Your task to perform on an android device: add a contact in the contacts app Image 0: 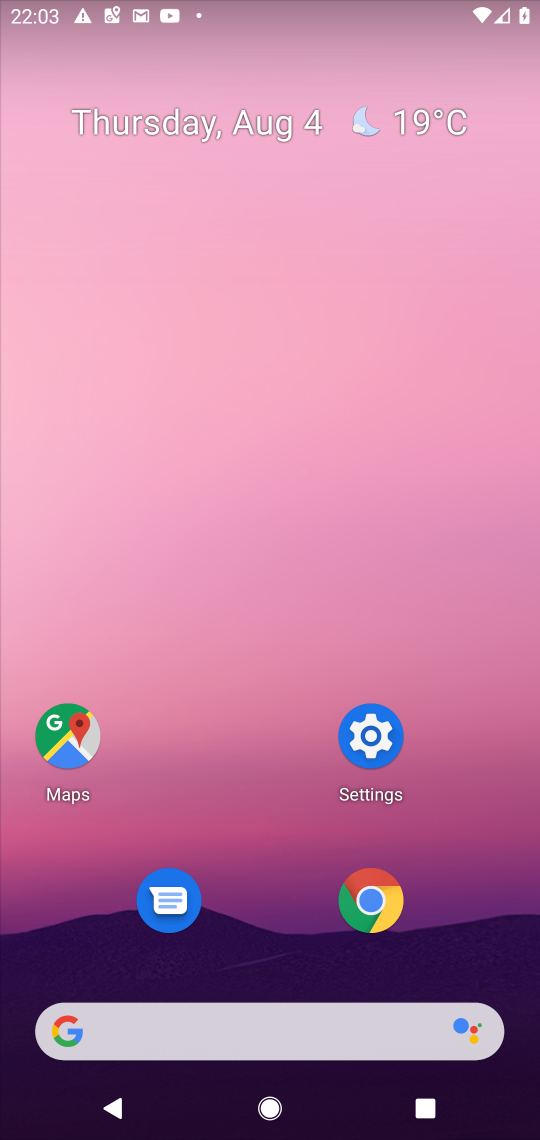
Step 0: drag from (266, 976) to (401, 21)
Your task to perform on an android device: add a contact in the contacts app Image 1: 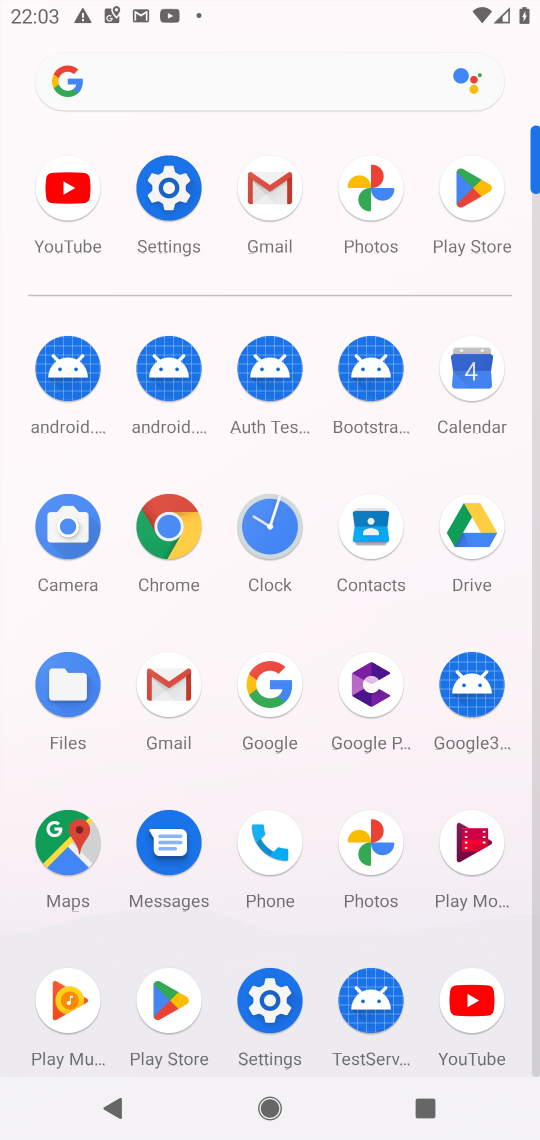
Step 1: click (367, 534)
Your task to perform on an android device: add a contact in the contacts app Image 2: 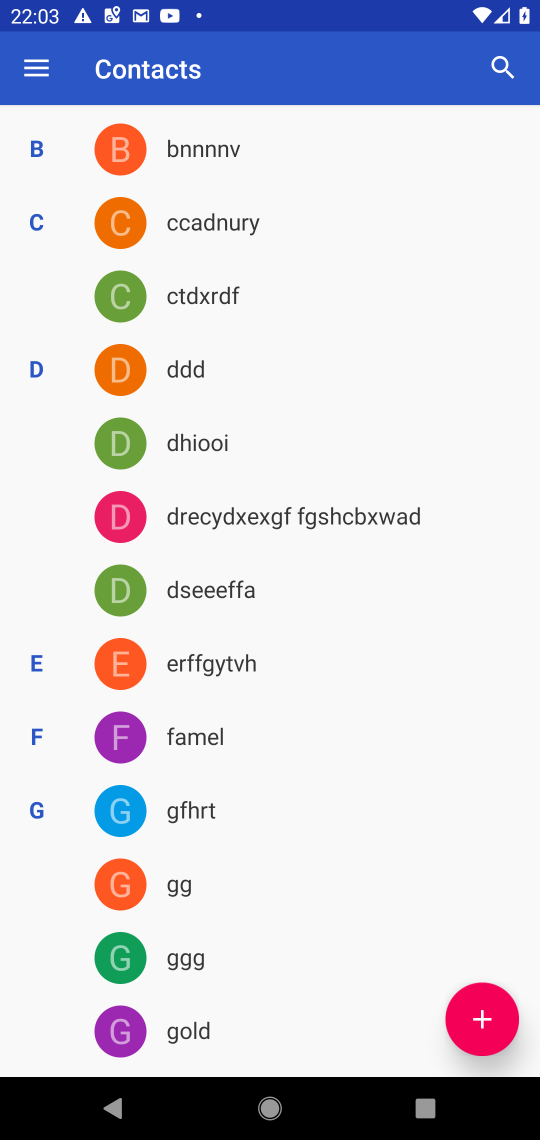
Step 2: click (488, 1014)
Your task to perform on an android device: add a contact in the contacts app Image 3: 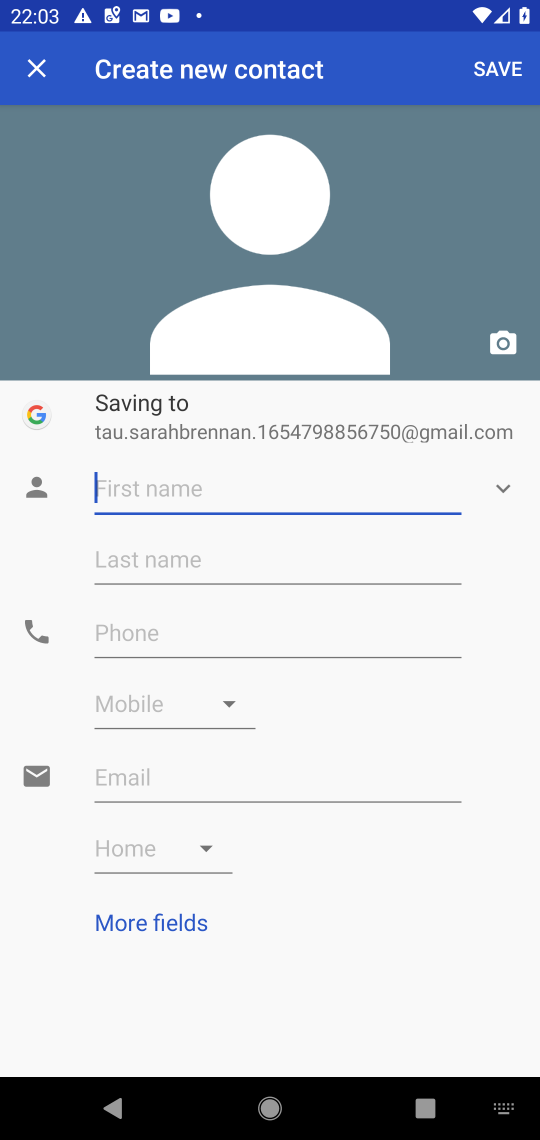
Step 3: type "byeewwwzx"
Your task to perform on an android device: add a contact in the contacts app Image 4: 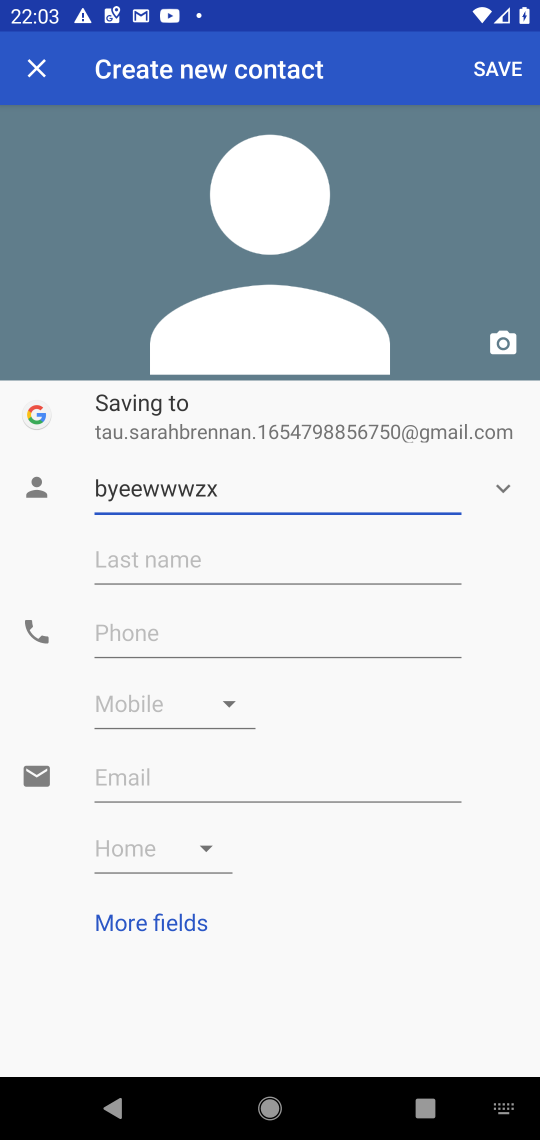
Step 4: click (117, 629)
Your task to perform on an android device: add a contact in the contacts app Image 5: 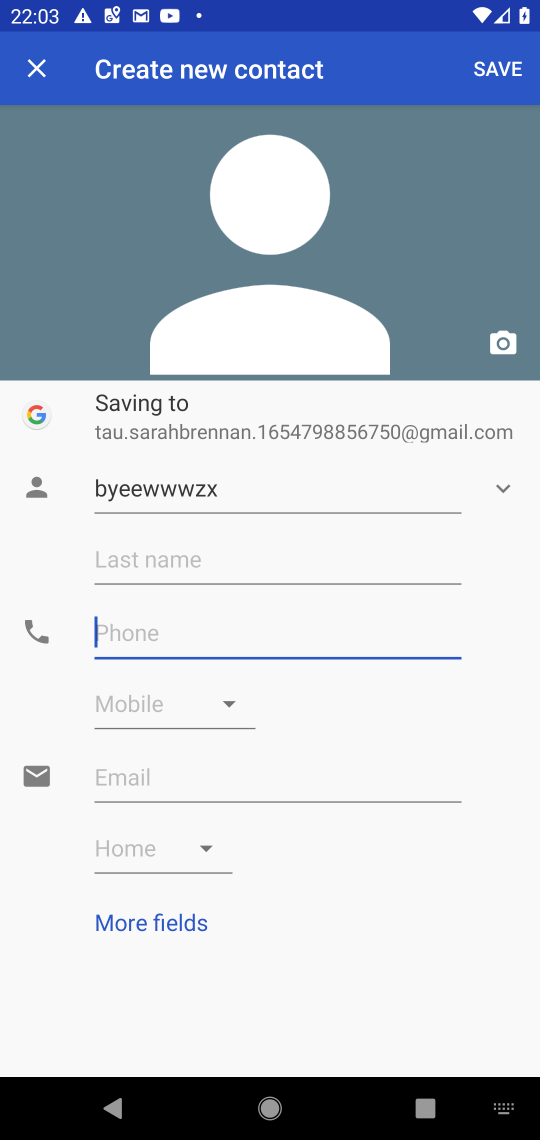
Step 5: type "2543366"
Your task to perform on an android device: add a contact in the contacts app Image 6: 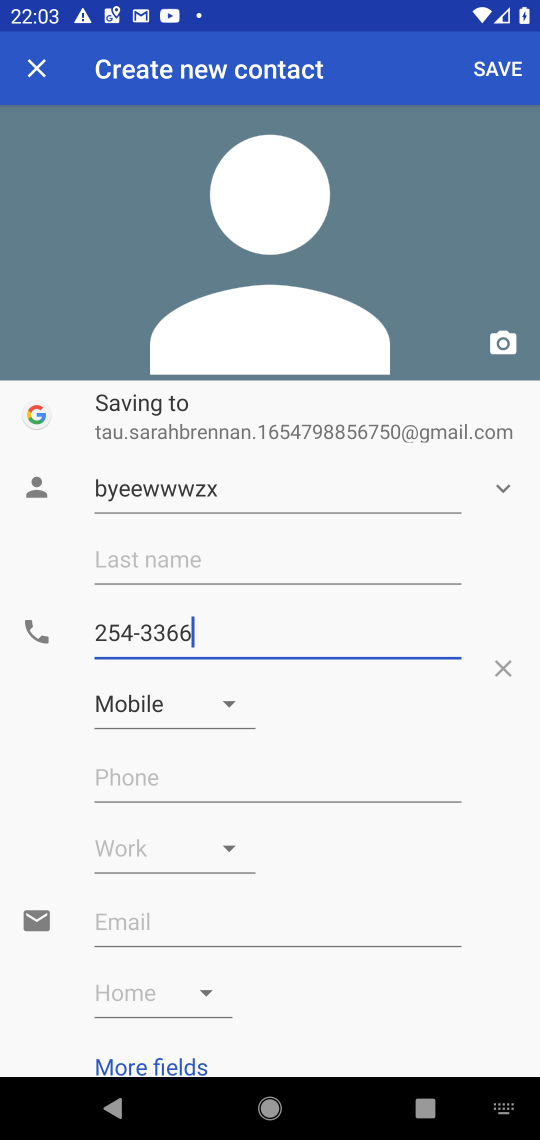
Step 6: click (505, 68)
Your task to perform on an android device: add a contact in the contacts app Image 7: 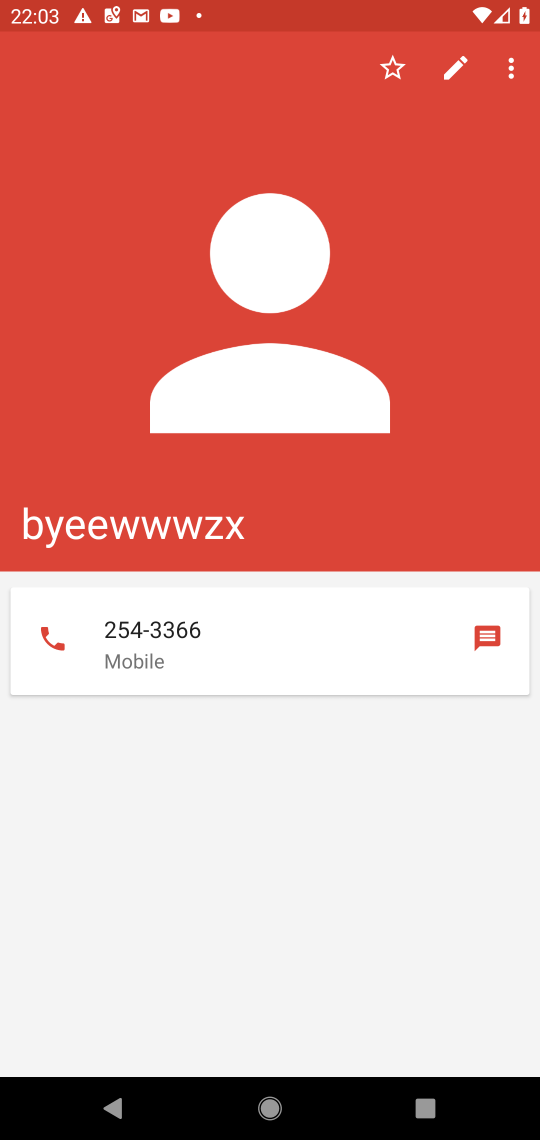
Step 7: task complete